Your task to perform on an android device: Set an alarm for 6pm Image 0: 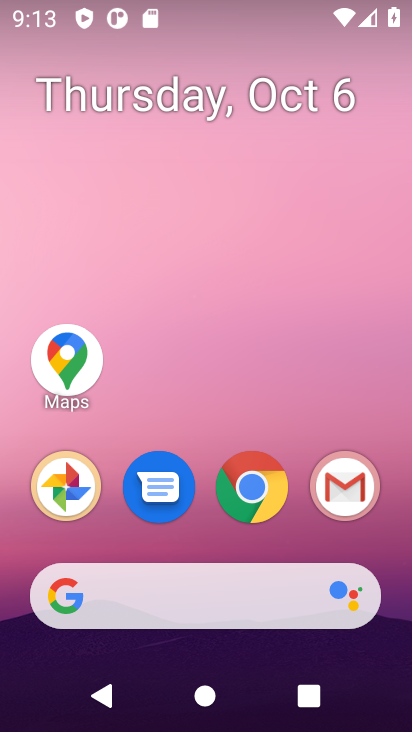
Step 0: drag from (178, 528) to (113, 83)
Your task to perform on an android device: Set an alarm for 6pm Image 1: 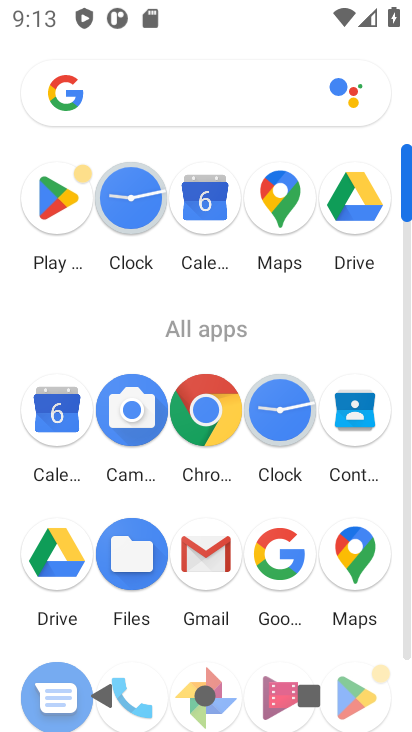
Step 1: click (297, 401)
Your task to perform on an android device: Set an alarm for 6pm Image 2: 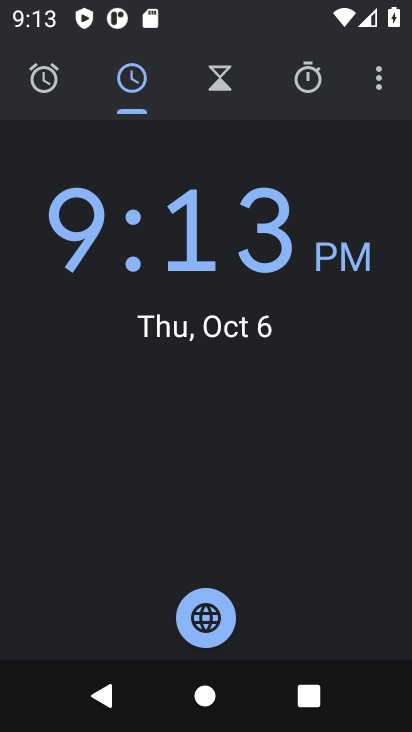
Step 2: click (36, 76)
Your task to perform on an android device: Set an alarm for 6pm Image 3: 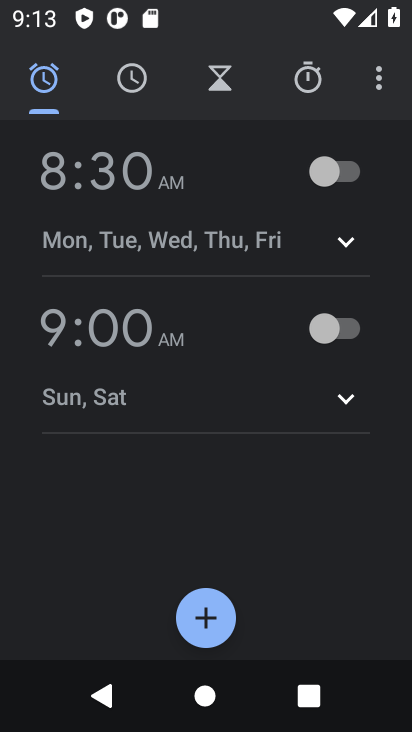
Step 3: click (198, 614)
Your task to perform on an android device: Set an alarm for 6pm Image 4: 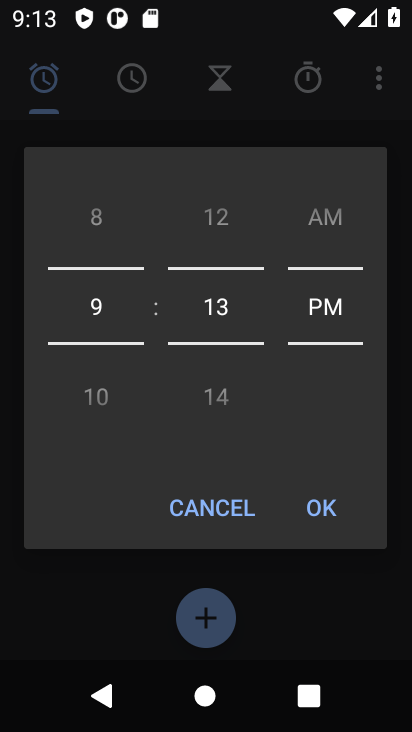
Step 4: drag from (107, 304) to (122, 464)
Your task to perform on an android device: Set an alarm for 6pm Image 5: 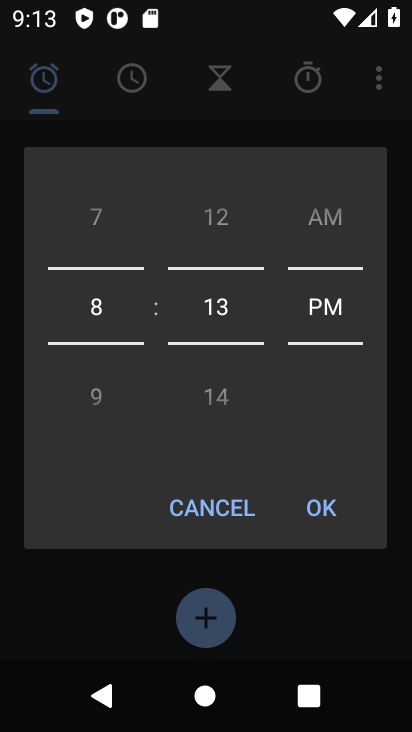
Step 5: drag from (106, 311) to (113, 447)
Your task to perform on an android device: Set an alarm for 6pm Image 6: 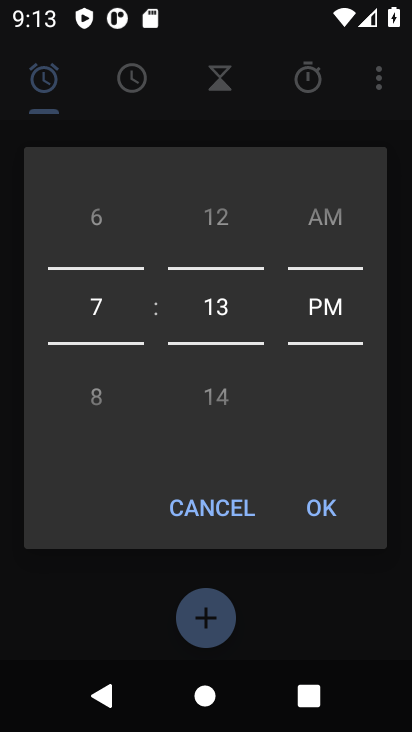
Step 6: drag from (98, 291) to (105, 477)
Your task to perform on an android device: Set an alarm for 6pm Image 7: 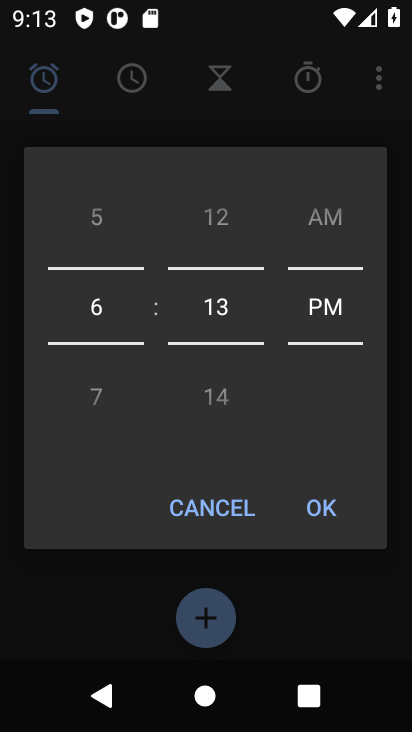
Step 7: drag from (232, 250) to (219, 457)
Your task to perform on an android device: Set an alarm for 6pm Image 8: 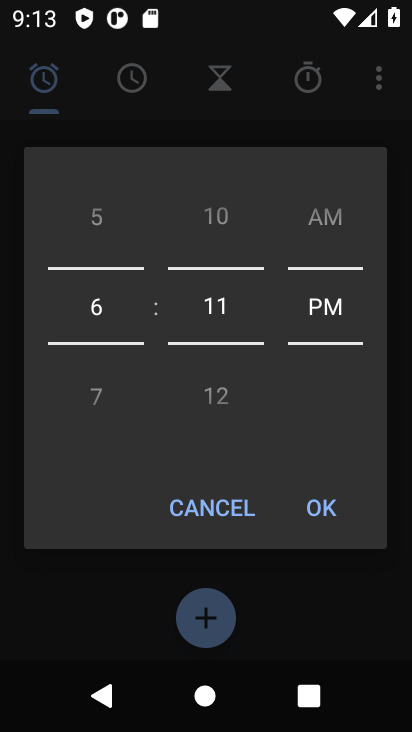
Step 8: drag from (222, 202) to (219, 410)
Your task to perform on an android device: Set an alarm for 6pm Image 9: 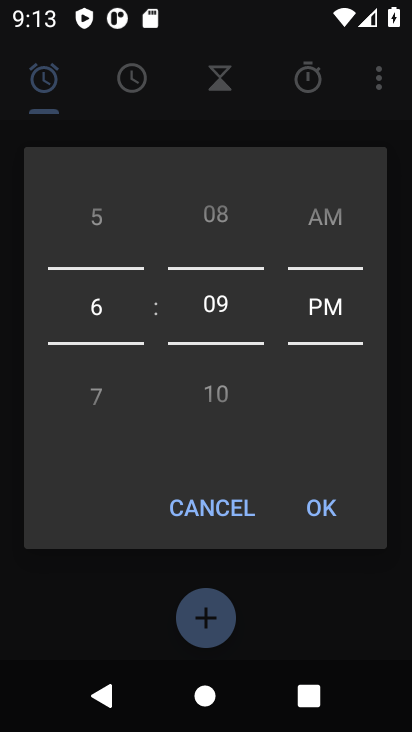
Step 9: drag from (232, 244) to (211, 451)
Your task to perform on an android device: Set an alarm for 6pm Image 10: 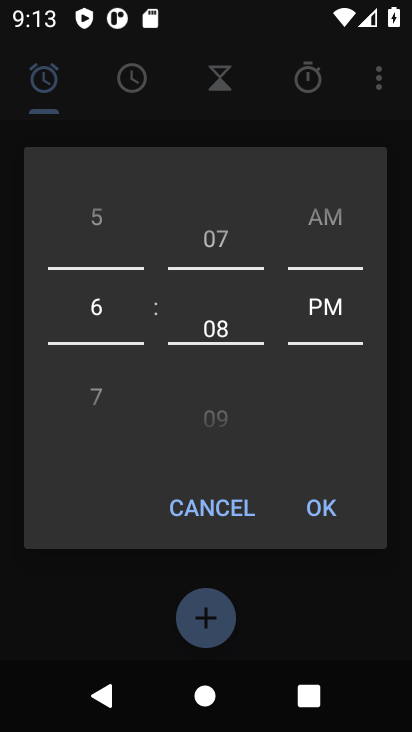
Step 10: drag from (232, 260) to (212, 436)
Your task to perform on an android device: Set an alarm for 6pm Image 11: 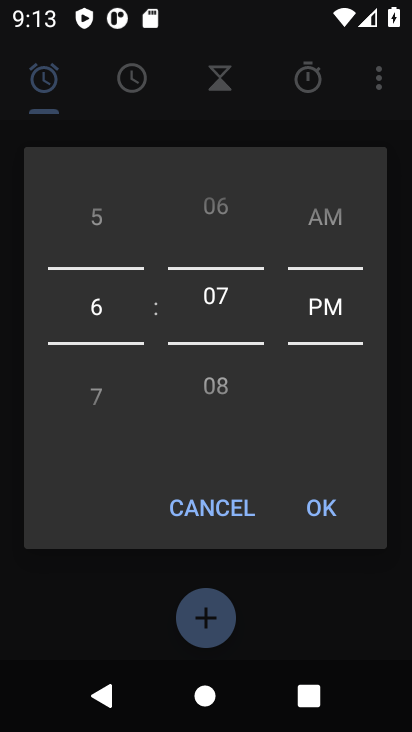
Step 11: drag from (229, 255) to (212, 493)
Your task to perform on an android device: Set an alarm for 6pm Image 12: 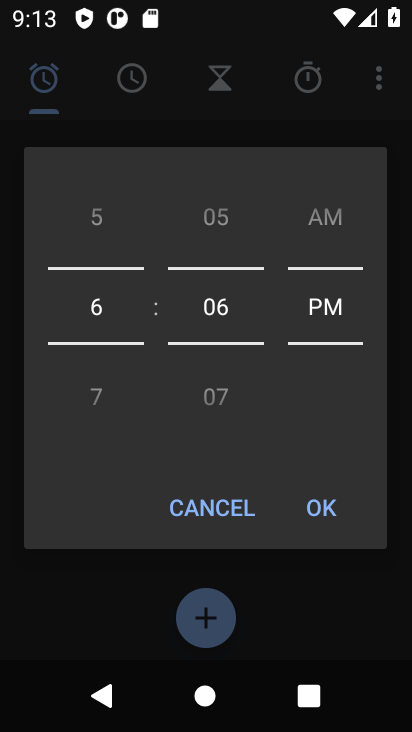
Step 12: drag from (206, 208) to (214, 516)
Your task to perform on an android device: Set an alarm for 6pm Image 13: 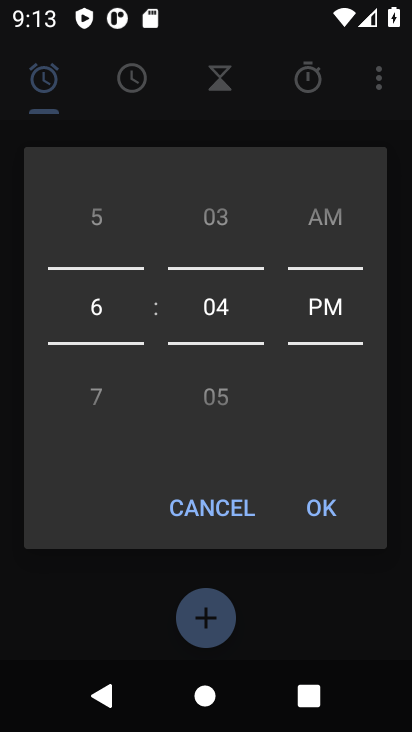
Step 13: drag from (224, 209) to (238, 444)
Your task to perform on an android device: Set an alarm for 6pm Image 14: 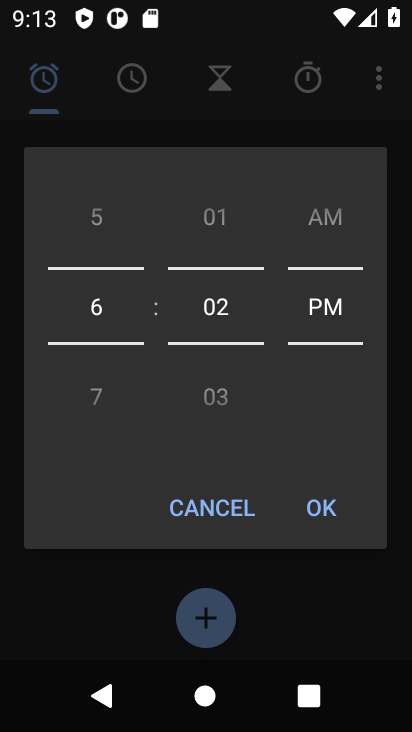
Step 14: drag from (230, 222) to (214, 500)
Your task to perform on an android device: Set an alarm for 6pm Image 15: 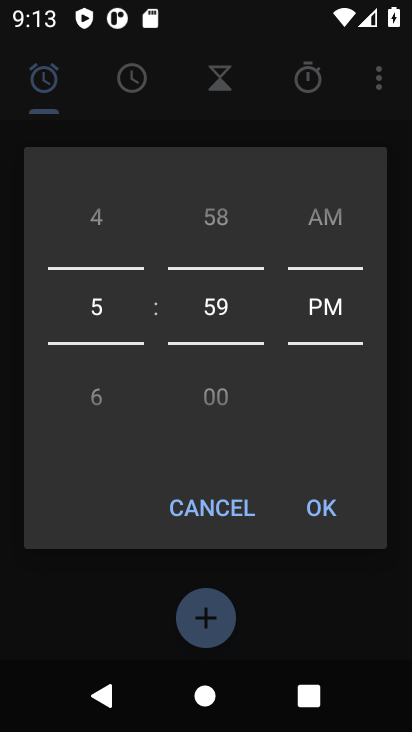
Step 15: click (207, 409)
Your task to perform on an android device: Set an alarm for 6pm Image 16: 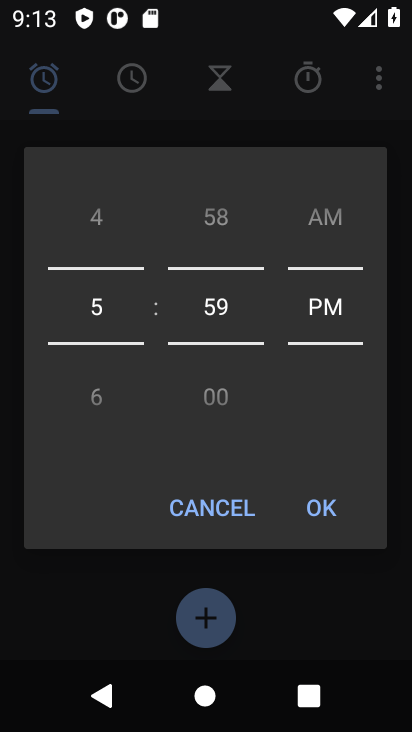
Step 16: drag from (213, 401) to (212, 303)
Your task to perform on an android device: Set an alarm for 6pm Image 17: 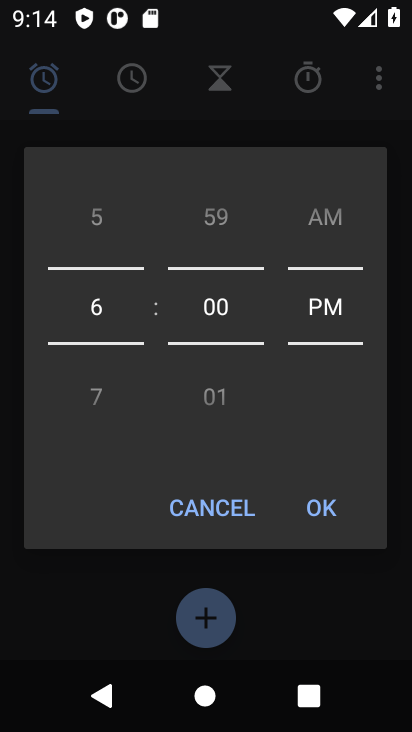
Step 17: drag from (331, 230) to (343, 333)
Your task to perform on an android device: Set an alarm for 6pm Image 18: 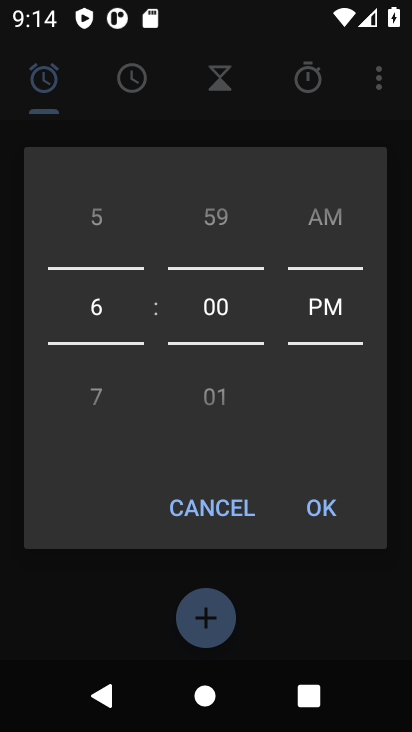
Step 18: drag from (315, 192) to (331, 400)
Your task to perform on an android device: Set an alarm for 6pm Image 19: 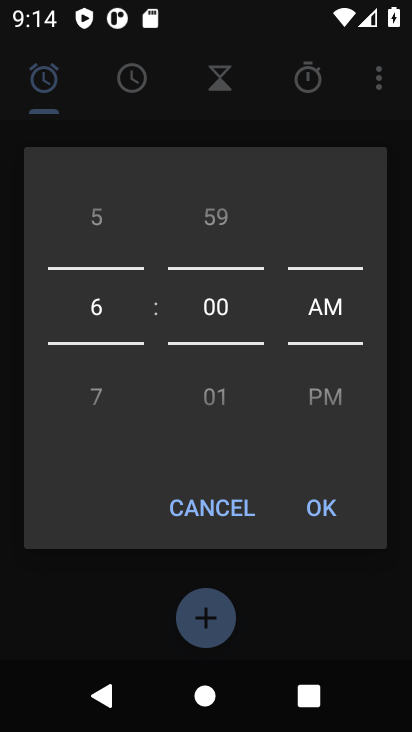
Step 19: drag from (310, 437) to (309, 289)
Your task to perform on an android device: Set an alarm for 6pm Image 20: 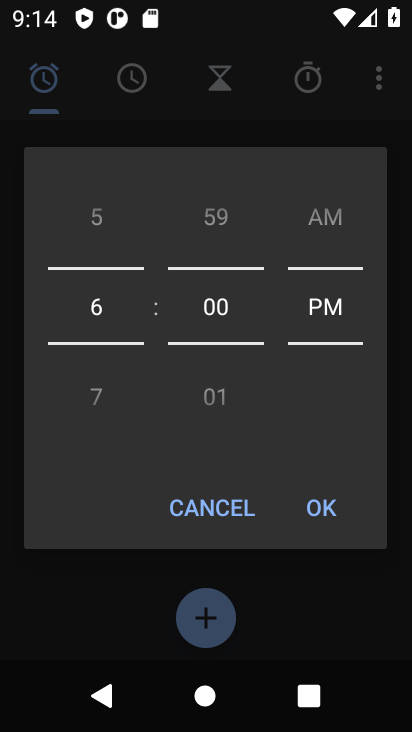
Step 20: click (324, 504)
Your task to perform on an android device: Set an alarm for 6pm Image 21: 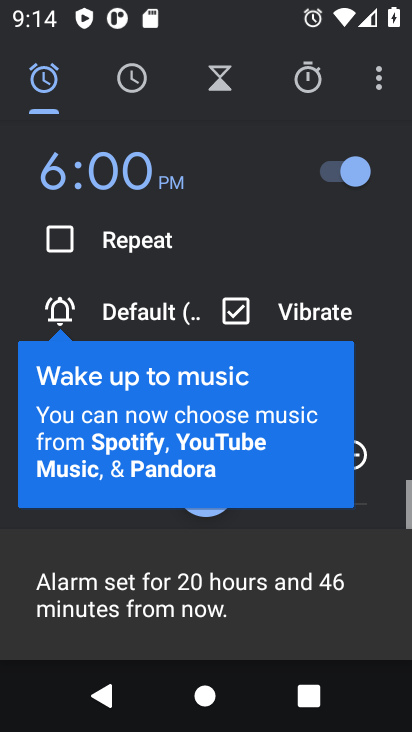
Step 21: task complete